Your task to perform on an android device: Open Reddit.com Image 0: 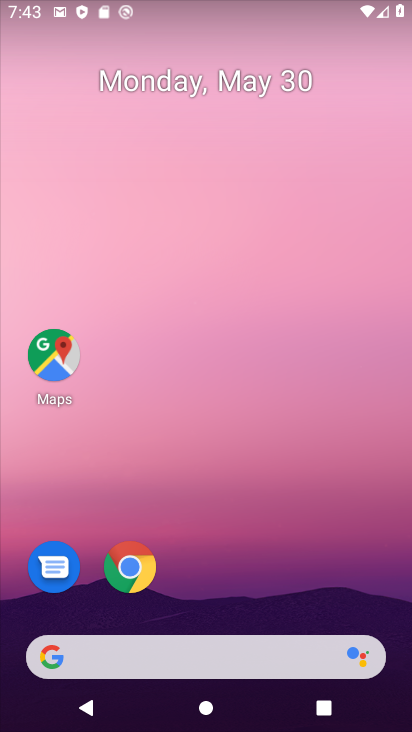
Step 0: task complete